Your task to perform on an android device: Go to Reddit.com Image 0: 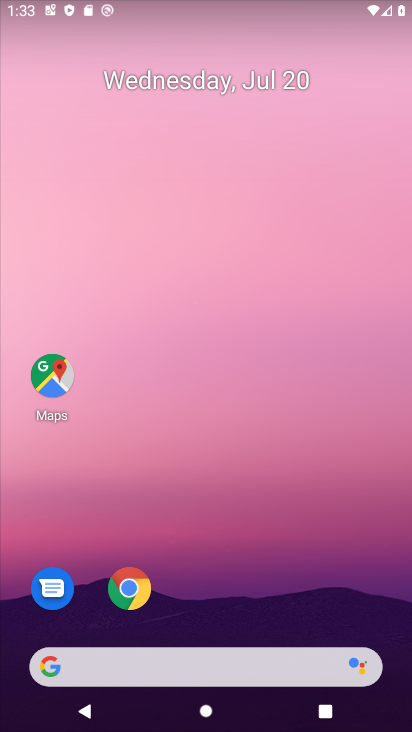
Step 0: drag from (392, 630) to (193, 0)
Your task to perform on an android device: Go to Reddit.com Image 1: 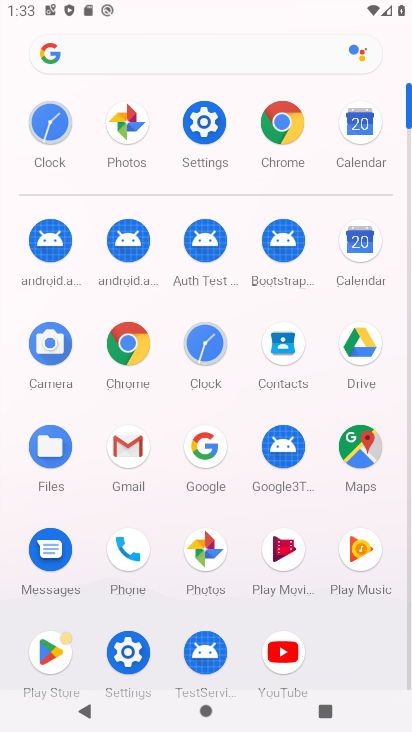
Step 1: click (207, 453)
Your task to perform on an android device: Go to Reddit.com Image 2: 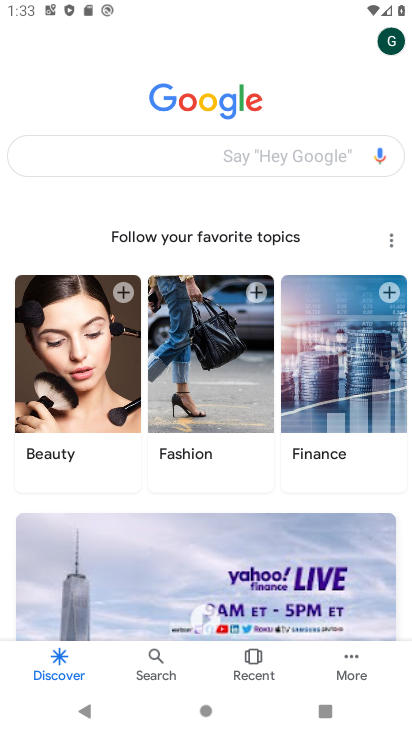
Step 2: click (160, 149)
Your task to perform on an android device: Go to Reddit.com Image 3: 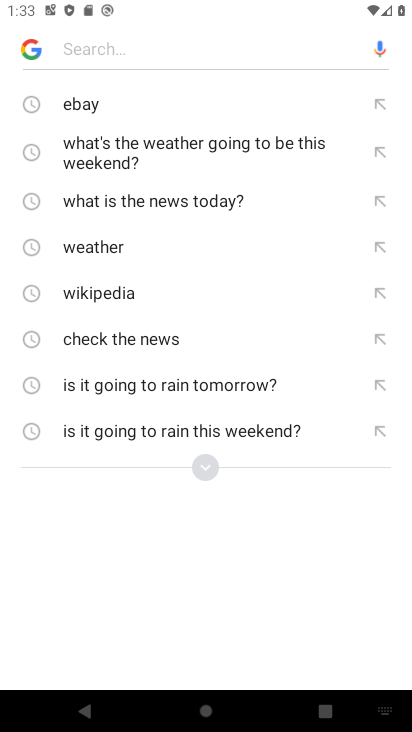
Step 3: type "Reddit.com"
Your task to perform on an android device: Go to Reddit.com Image 4: 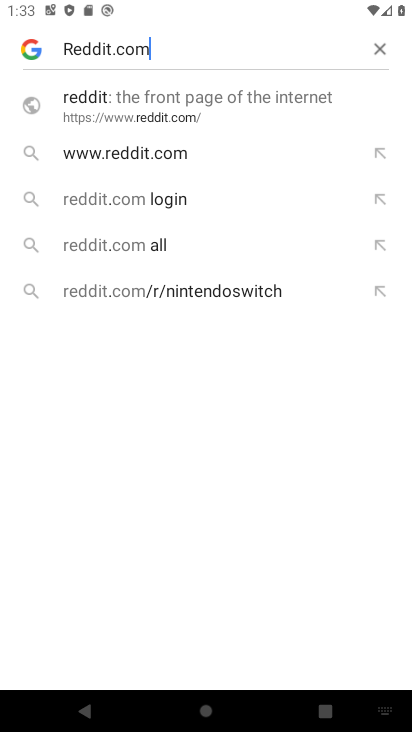
Step 4: click (156, 103)
Your task to perform on an android device: Go to Reddit.com Image 5: 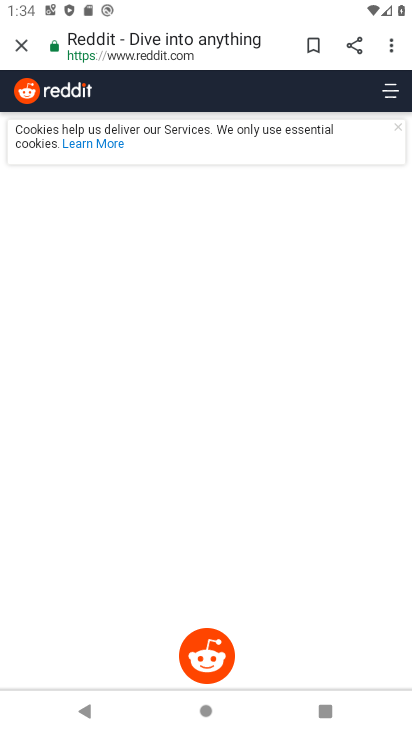
Step 5: task complete